Your task to perform on an android device: Open Google Chrome Image 0: 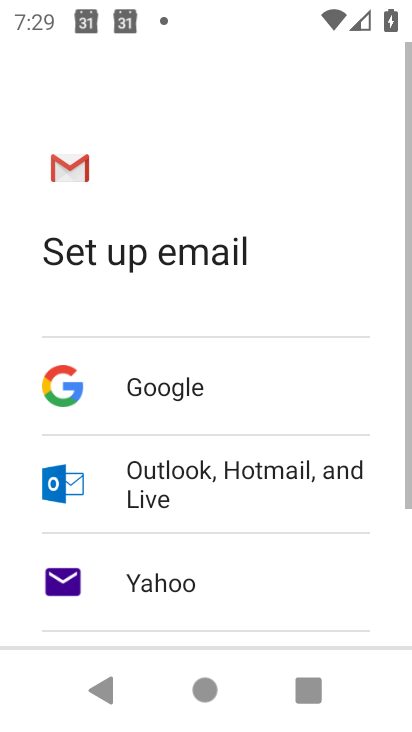
Step 0: press home button
Your task to perform on an android device: Open Google Chrome Image 1: 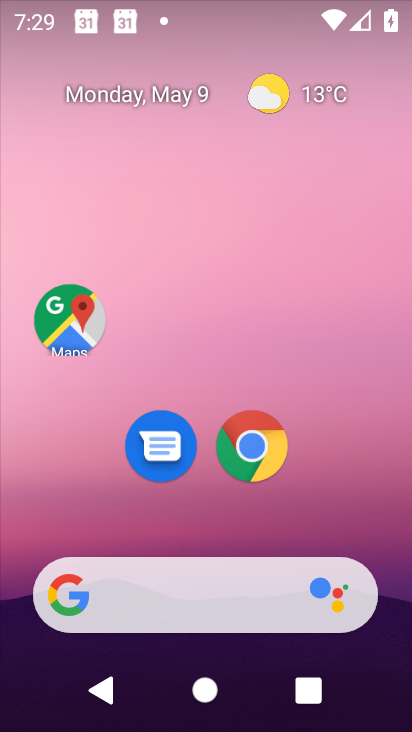
Step 1: click (264, 467)
Your task to perform on an android device: Open Google Chrome Image 2: 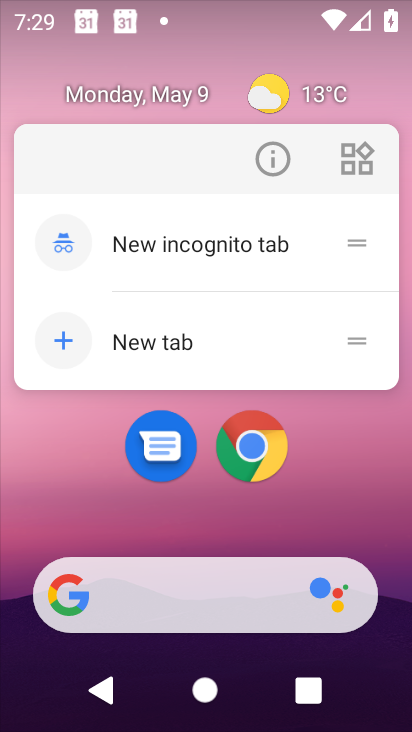
Step 2: click (262, 452)
Your task to perform on an android device: Open Google Chrome Image 3: 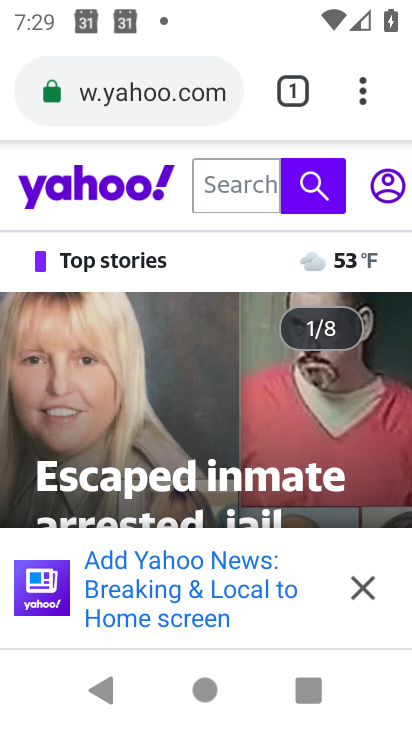
Step 3: task complete